Your task to perform on an android device: install app "Lyft - Rideshare, Bikes, Scooters & Transit" Image 0: 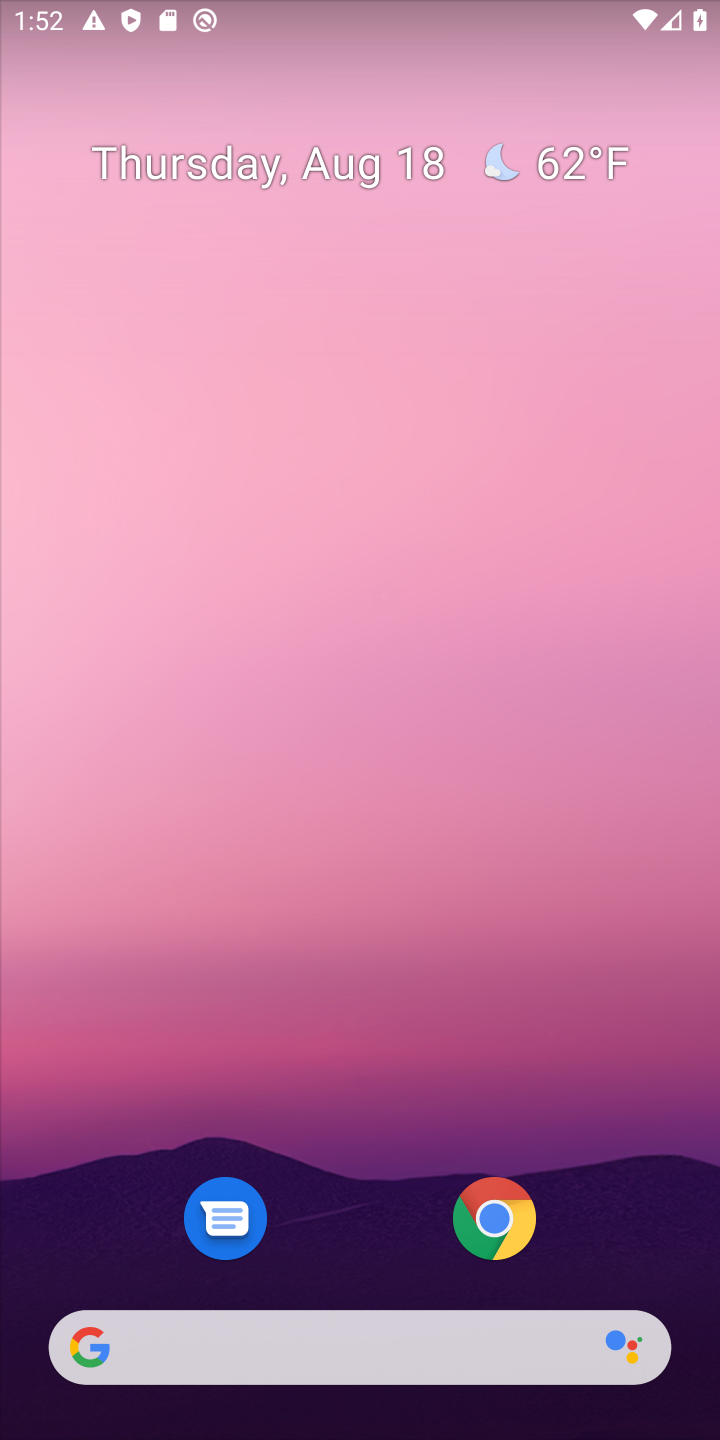
Step 0: drag from (336, 1132) to (351, 337)
Your task to perform on an android device: install app "Lyft - Rideshare, Bikes, Scooters & Transit" Image 1: 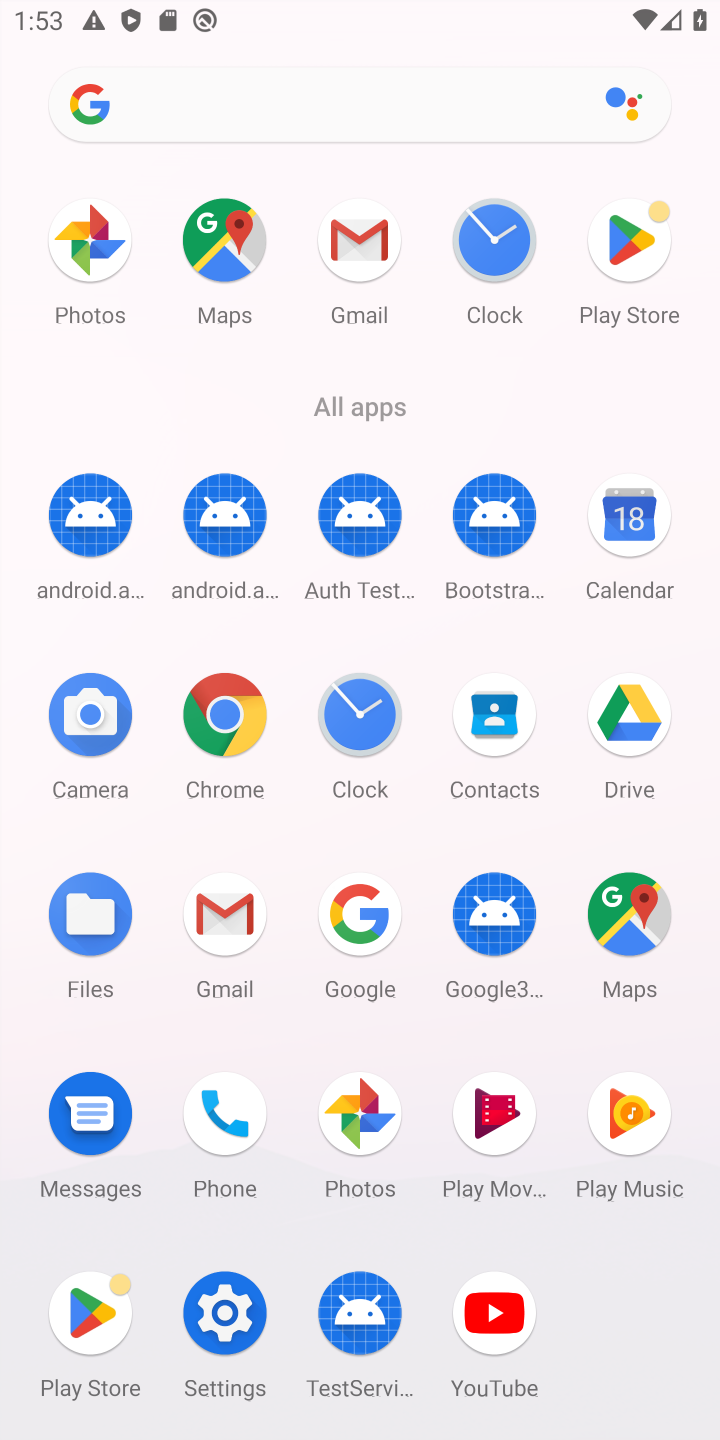
Step 1: click (636, 235)
Your task to perform on an android device: install app "Lyft - Rideshare, Bikes, Scooters & Transit" Image 2: 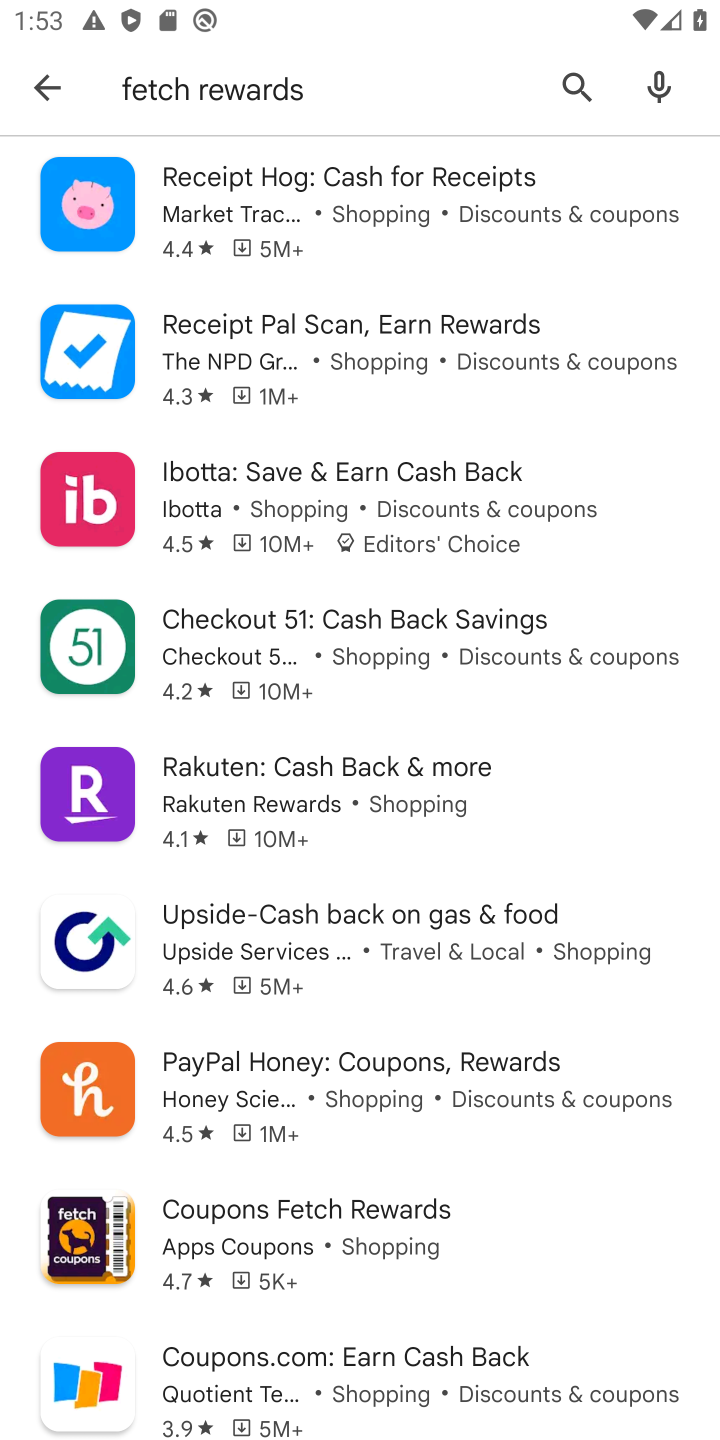
Step 2: click (588, 82)
Your task to perform on an android device: install app "Lyft - Rideshare, Bikes, Scooters & Transit" Image 3: 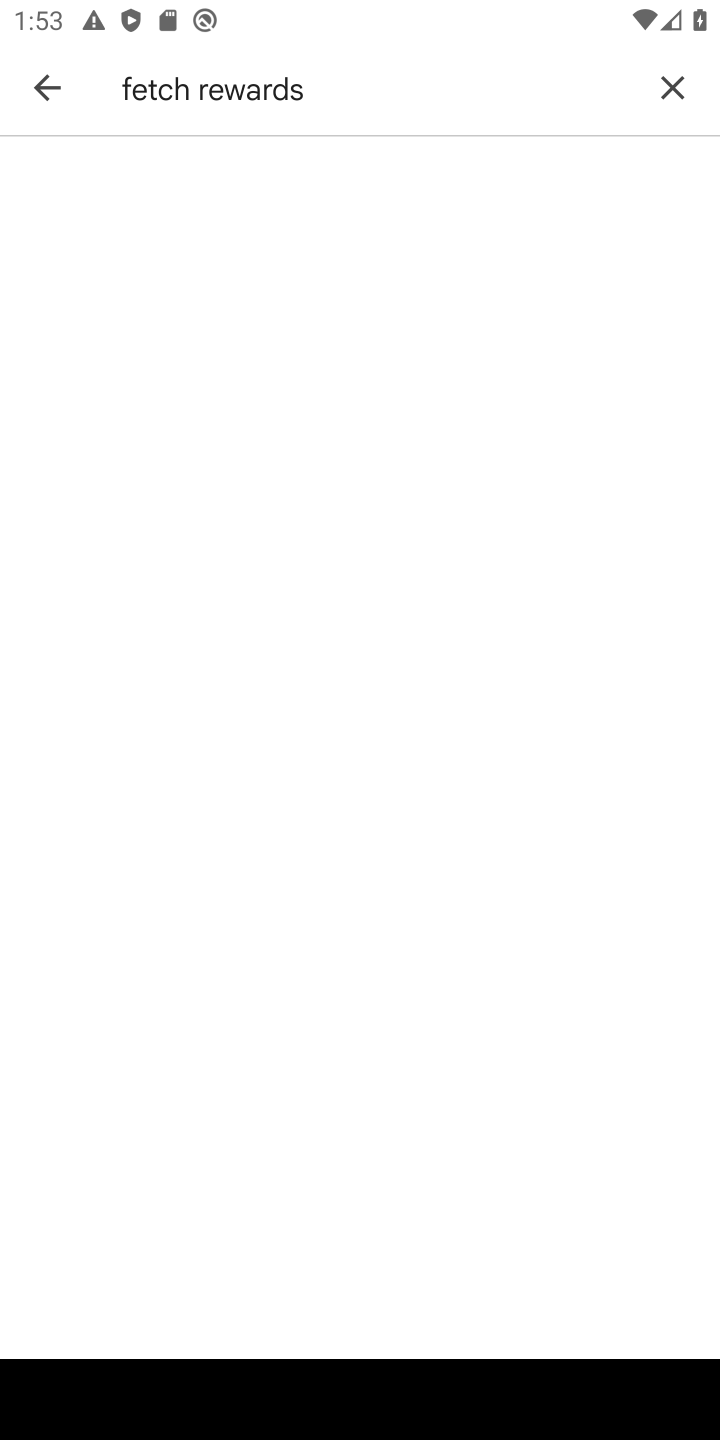
Step 3: click (671, 97)
Your task to perform on an android device: install app "Lyft - Rideshare, Bikes, Scooters & Transit" Image 4: 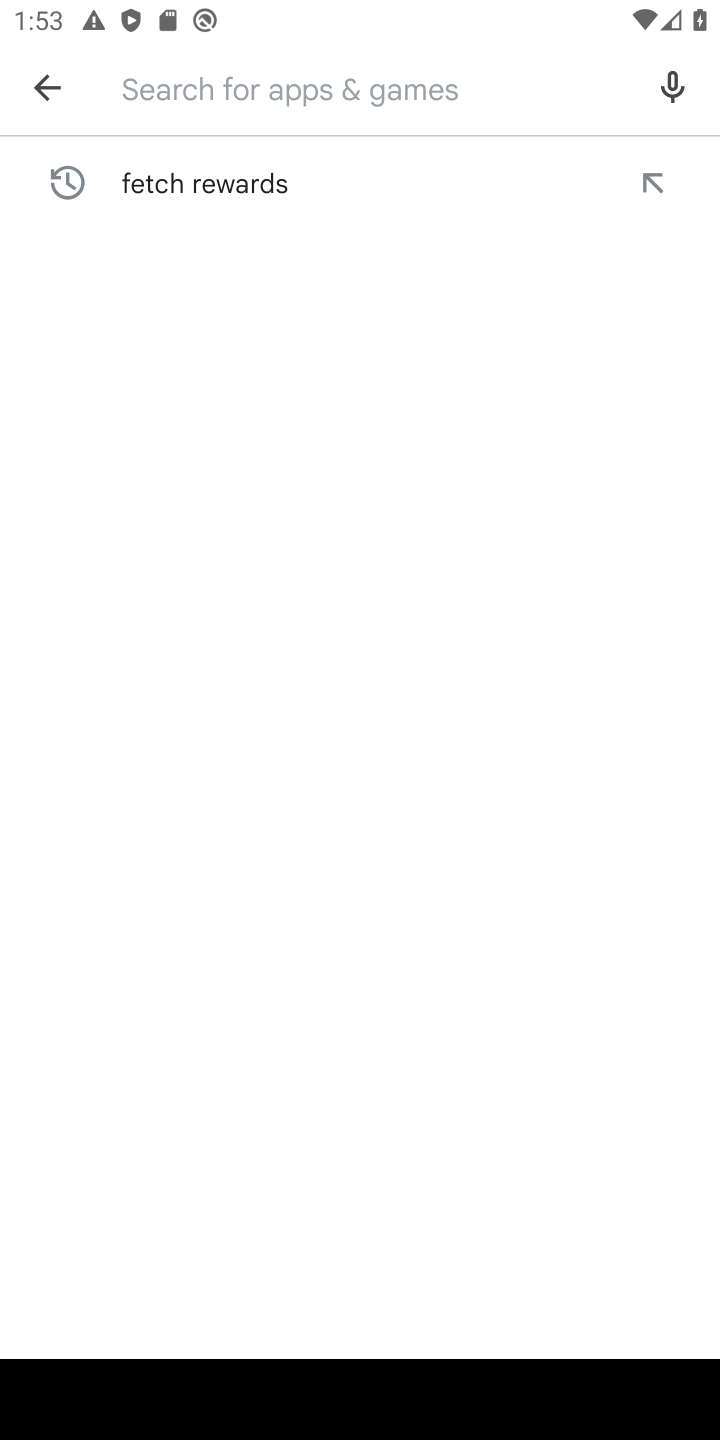
Step 4: type "Lyft - Rideshare, Bikes, Scooters & Transit"
Your task to perform on an android device: install app "Lyft - Rideshare, Bikes, Scooters & Transit" Image 5: 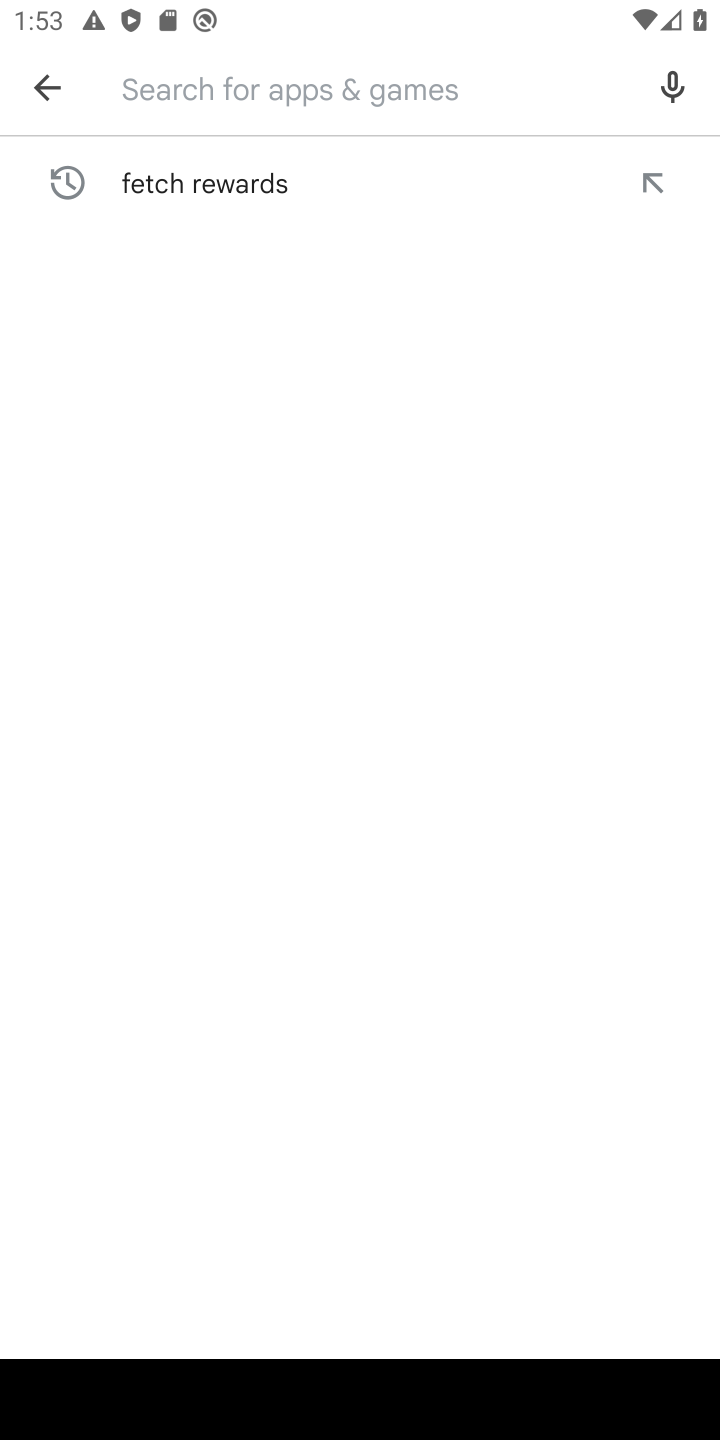
Step 5: click (322, 95)
Your task to perform on an android device: install app "Lyft - Rideshare, Bikes, Scooters & Transit" Image 6: 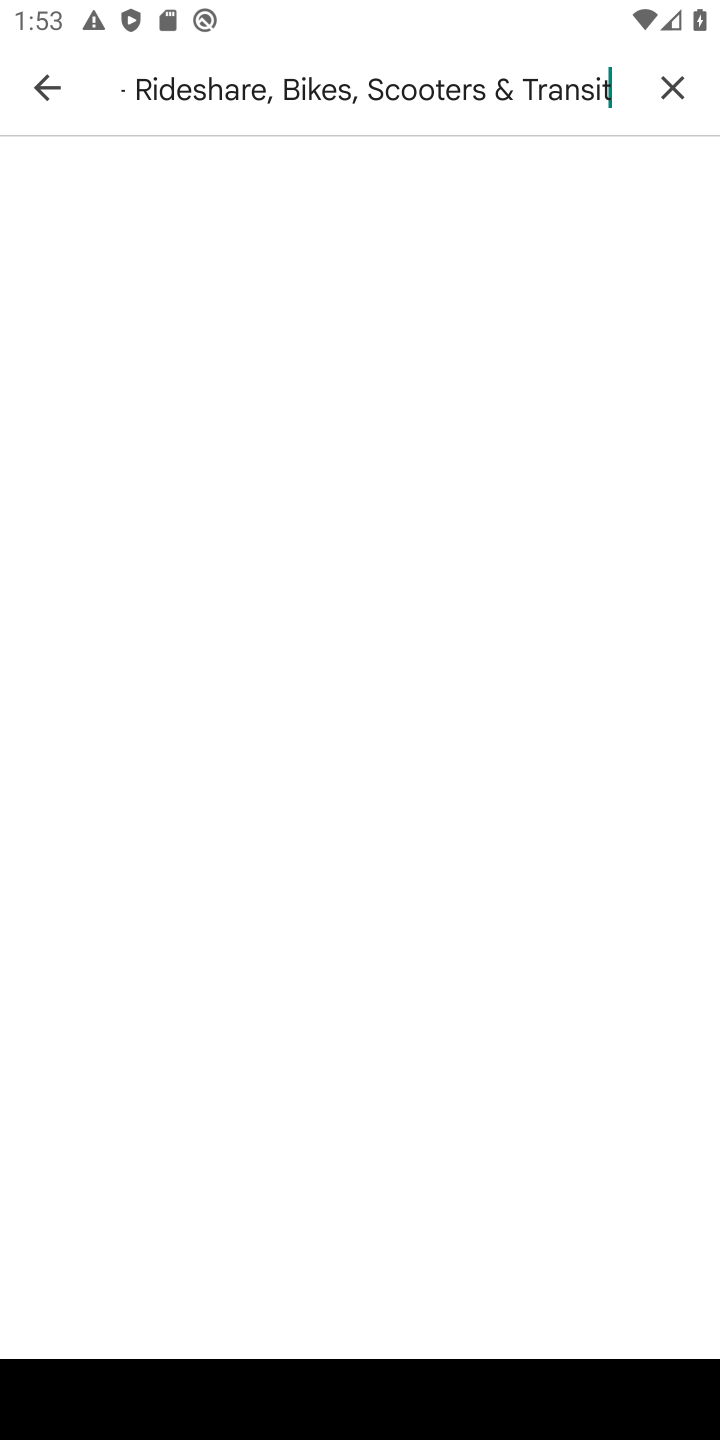
Step 6: type ""
Your task to perform on an android device: install app "Lyft - Rideshare, Bikes, Scooters & Transit" Image 7: 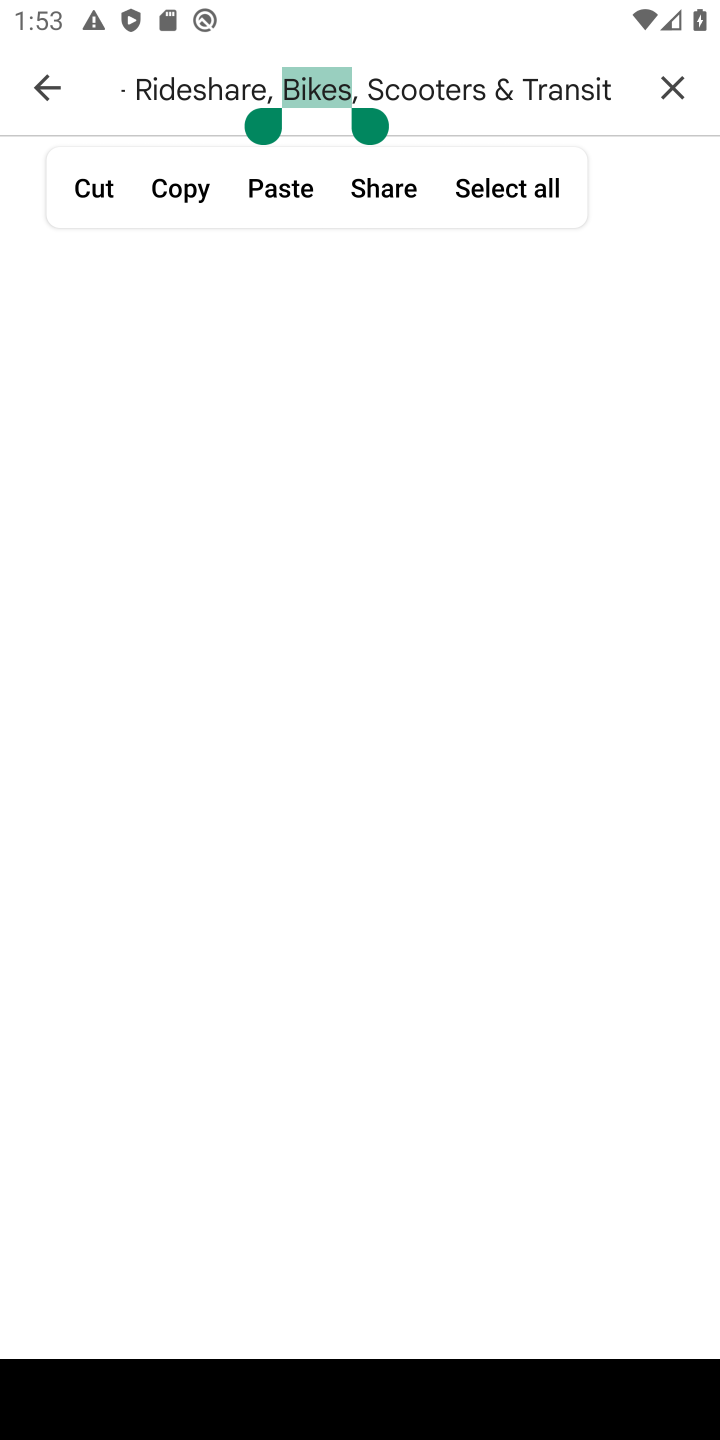
Step 7: type "Lyft - Rideshare, Bikes, Scooters & Transit"
Your task to perform on an android device: install app "Lyft - Rideshare, Bikes, Scooters & Transit" Image 8: 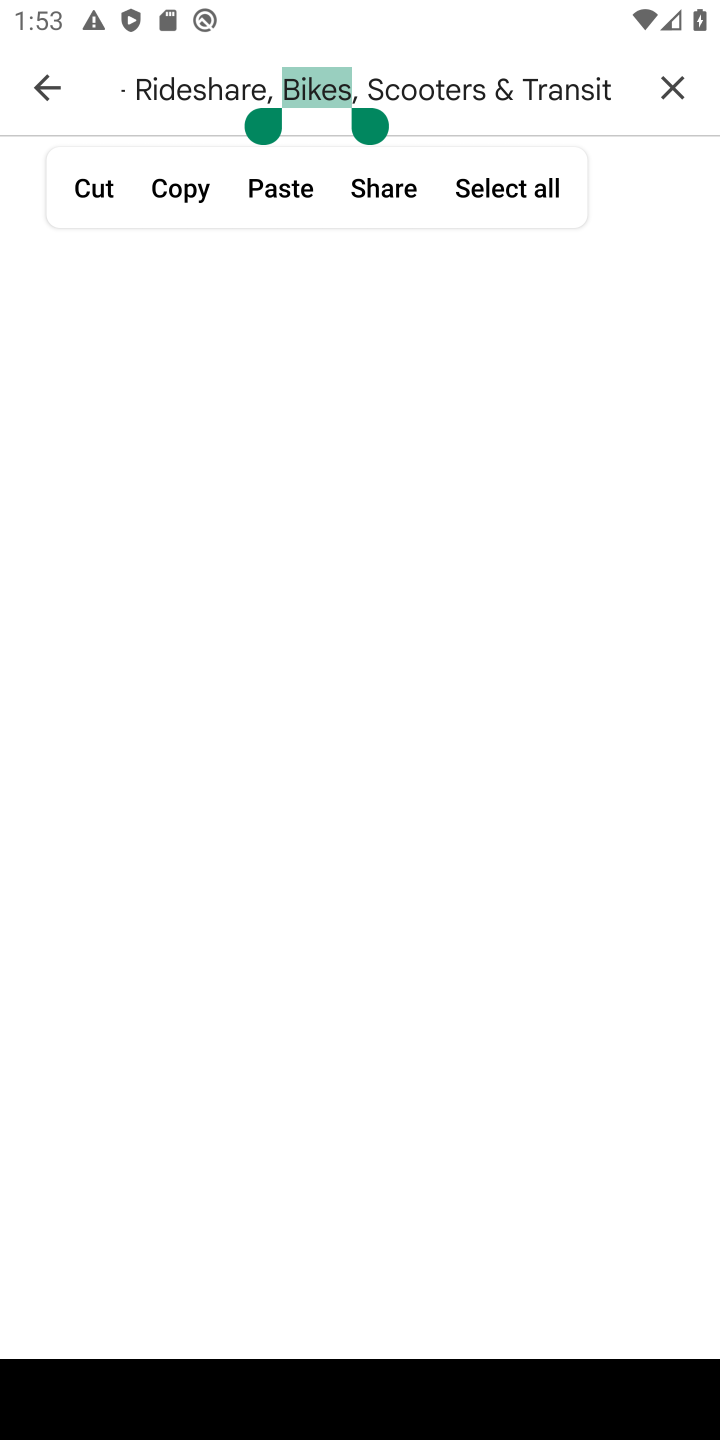
Step 8: click (665, 90)
Your task to perform on an android device: install app "Lyft - Rideshare, Bikes, Scooters & Transit" Image 9: 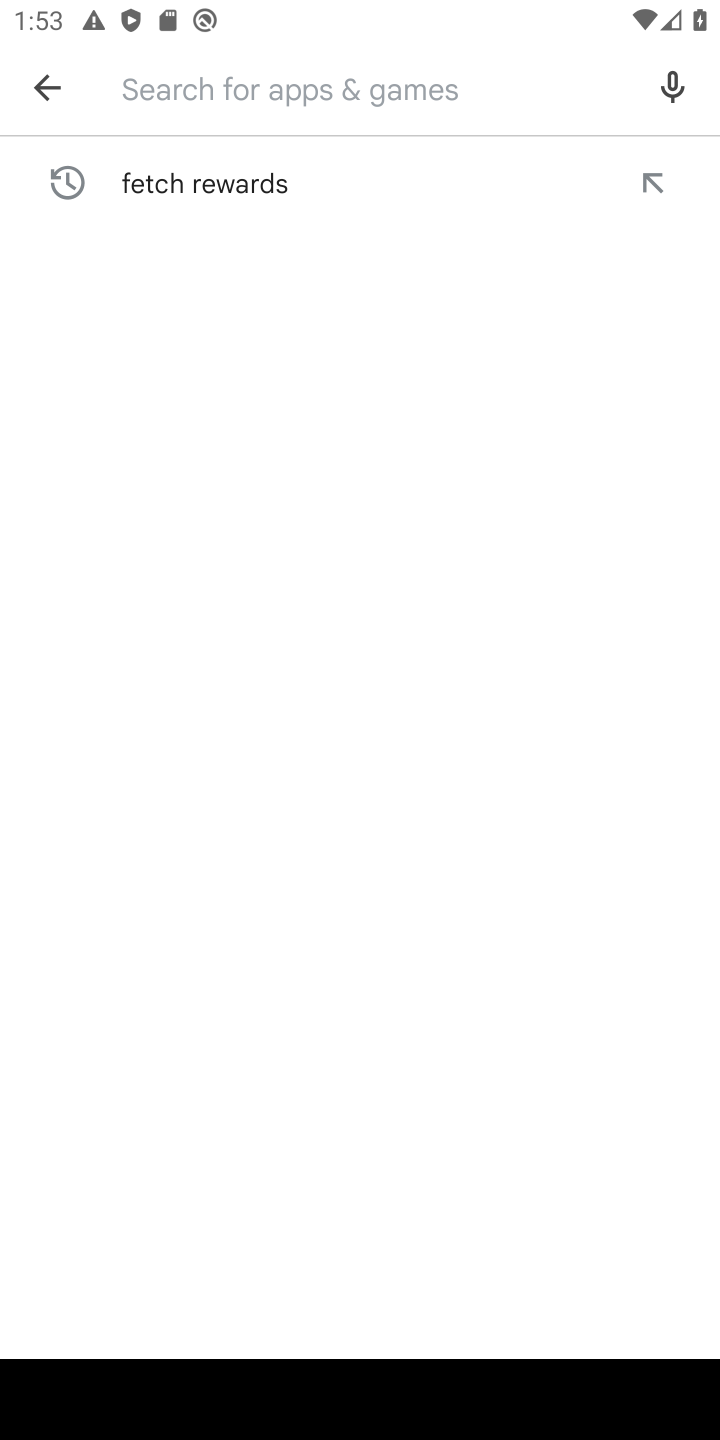
Step 9: type "Lyft - Rideshare, Bikes, Scooters & Transit"
Your task to perform on an android device: install app "Lyft - Rideshare, Bikes, Scooters & Transit" Image 10: 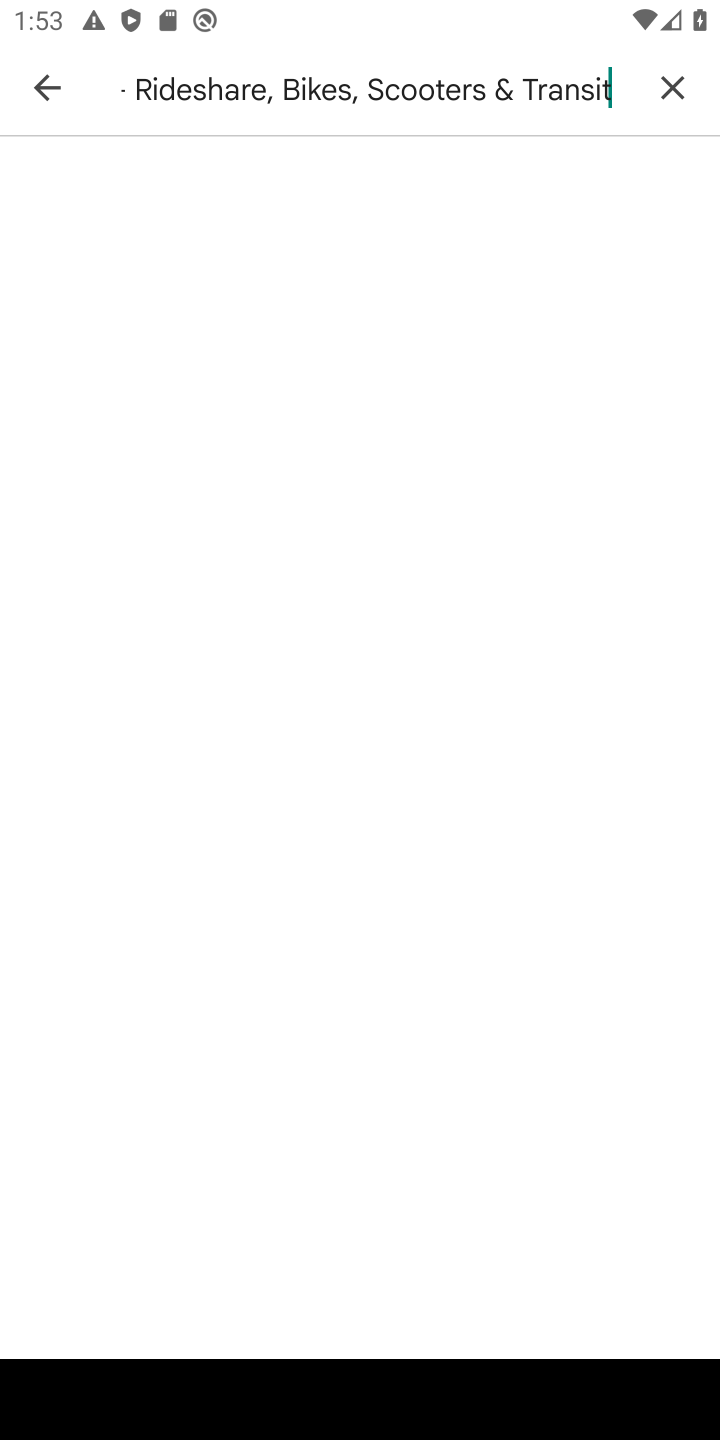
Step 10: task complete